Your task to perform on an android device: find which apps use the phone's location Image 0: 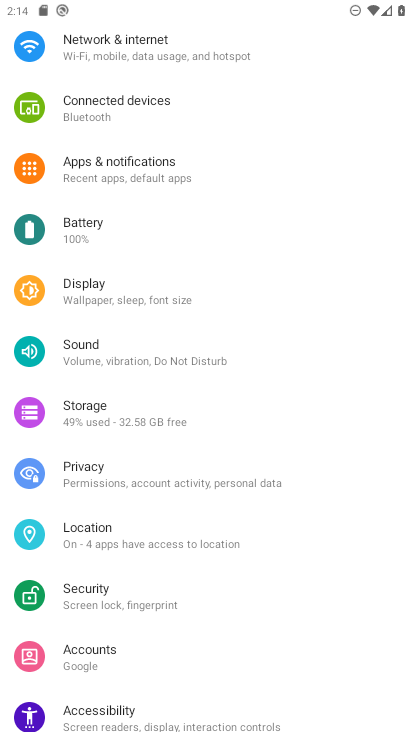
Step 0: press home button
Your task to perform on an android device: find which apps use the phone's location Image 1: 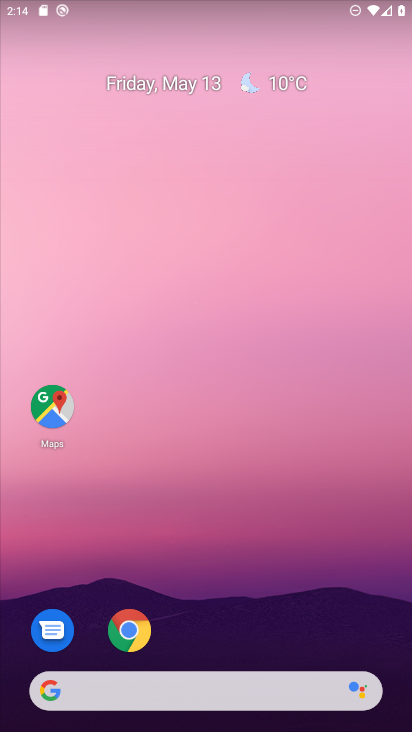
Step 1: drag from (197, 7) to (160, 565)
Your task to perform on an android device: find which apps use the phone's location Image 2: 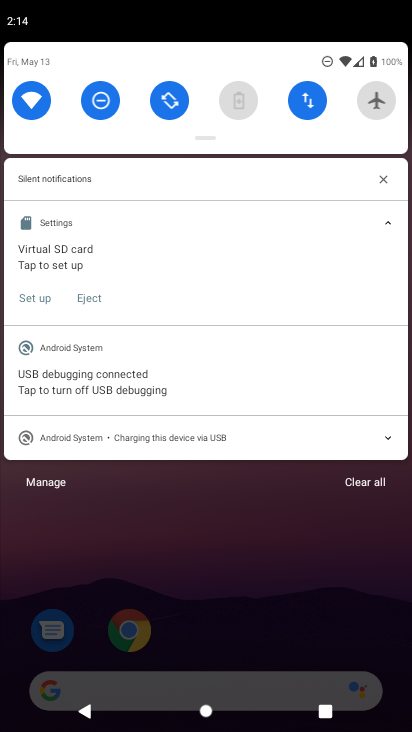
Step 2: click (217, 550)
Your task to perform on an android device: find which apps use the phone's location Image 3: 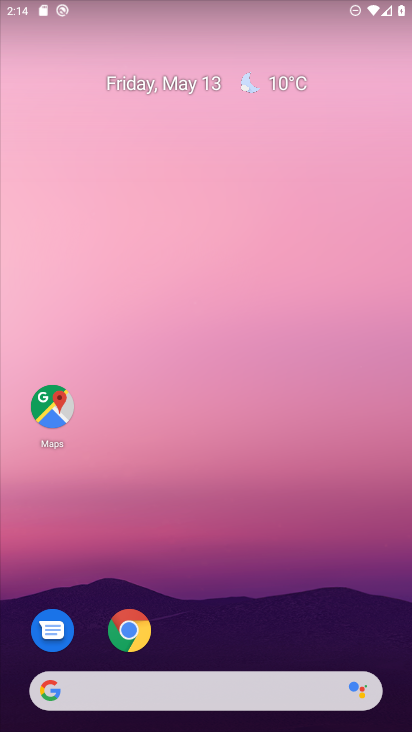
Step 3: drag from (219, 658) to (242, 150)
Your task to perform on an android device: find which apps use the phone's location Image 4: 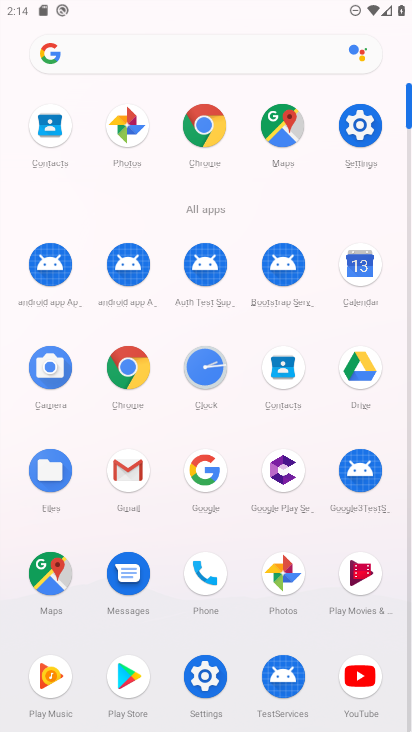
Step 4: click (362, 113)
Your task to perform on an android device: find which apps use the phone's location Image 5: 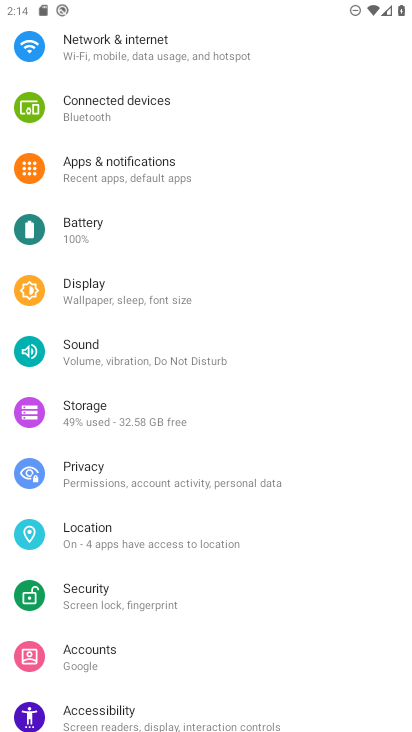
Step 5: click (120, 523)
Your task to perform on an android device: find which apps use the phone's location Image 6: 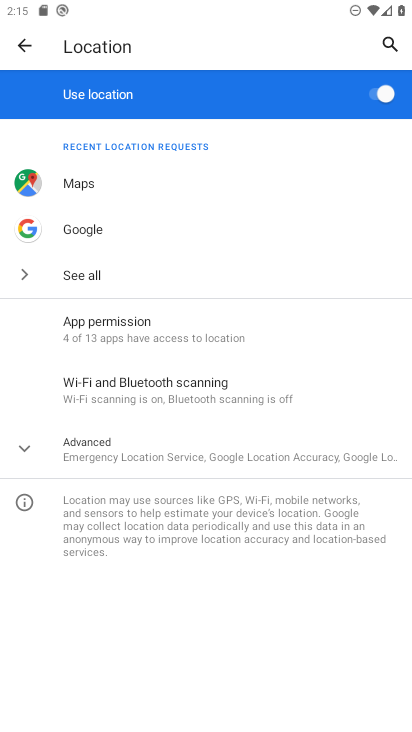
Step 6: click (110, 328)
Your task to perform on an android device: find which apps use the phone's location Image 7: 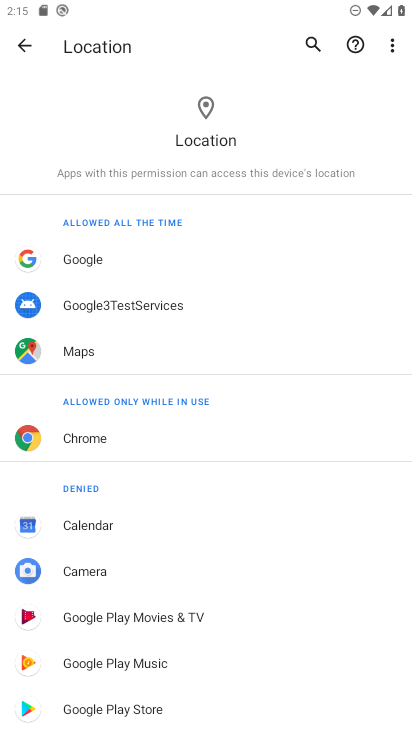
Step 7: task complete